Your task to perform on an android device: Open Youtube and go to the subscriptions tab Image 0: 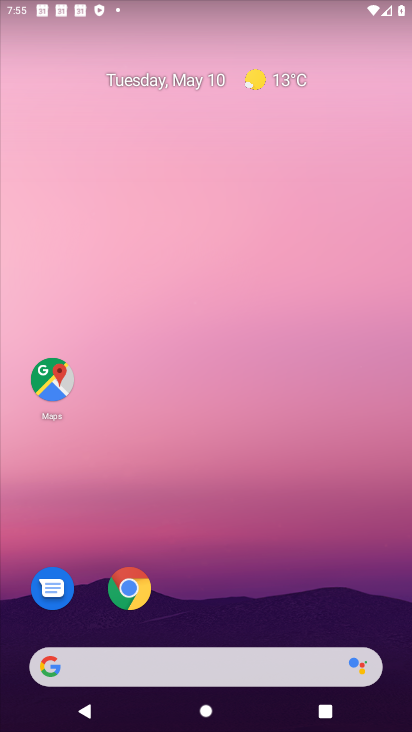
Step 0: drag from (252, 613) to (270, 117)
Your task to perform on an android device: Open Youtube and go to the subscriptions tab Image 1: 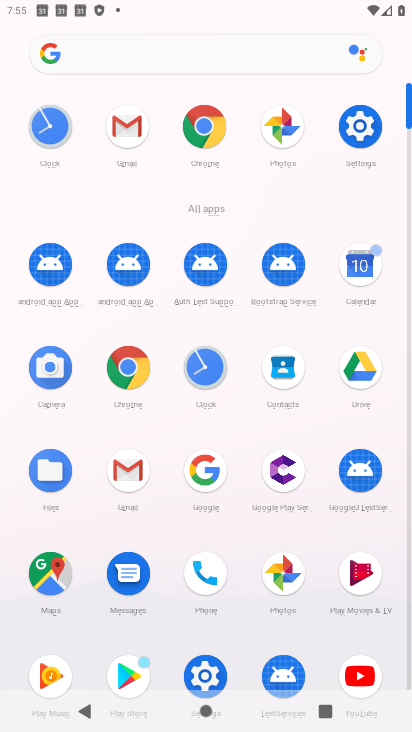
Step 1: click (352, 673)
Your task to perform on an android device: Open Youtube and go to the subscriptions tab Image 2: 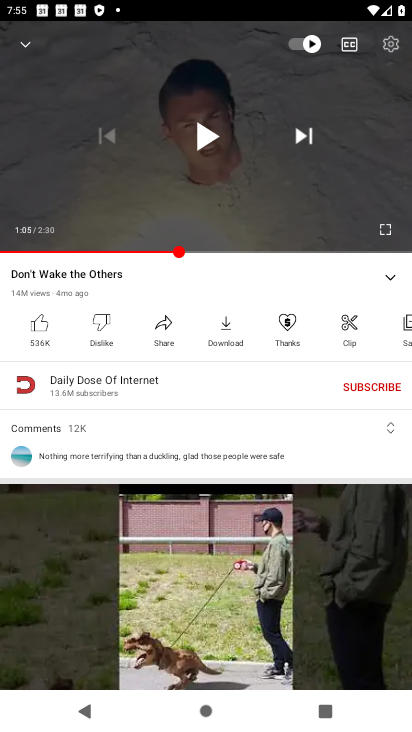
Step 2: click (24, 43)
Your task to perform on an android device: Open Youtube and go to the subscriptions tab Image 3: 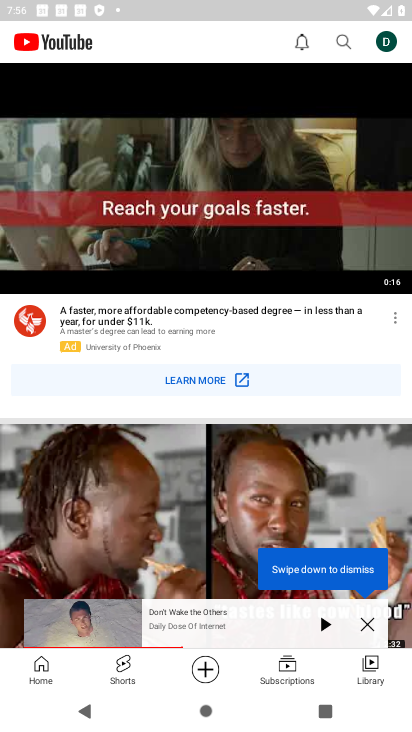
Step 3: click (284, 663)
Your task to perform on an android device: Open Youtube and go to the subscriptions tab Image 4: 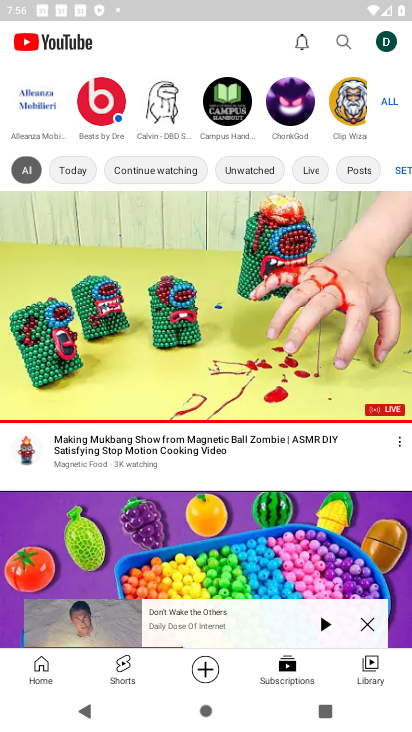
Step 4: task complete